Your task to perform on an android device: turn off location Image 0: 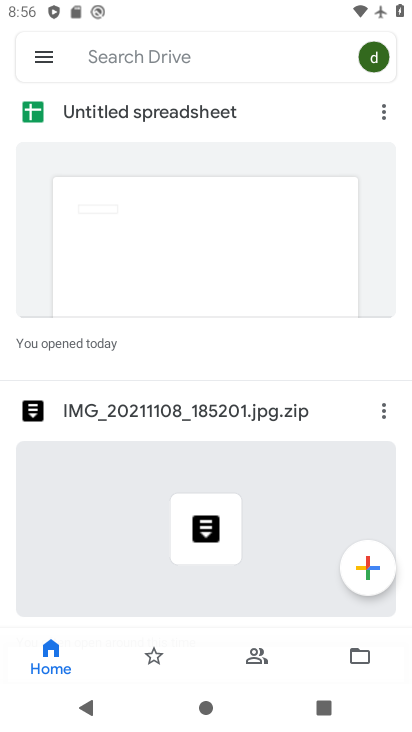
Step 0: press home button
Your task to perform on an android device: turn off location Image 1: 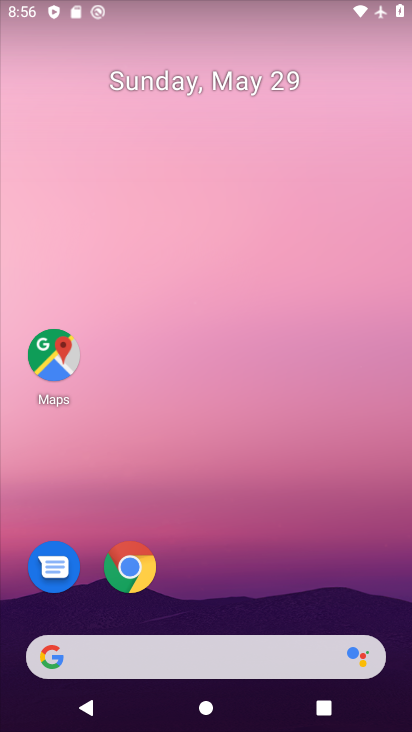
Step 1: drag from (386, 619) to (327, 136)
Your task to perform on an android device: turn off location Image 2: 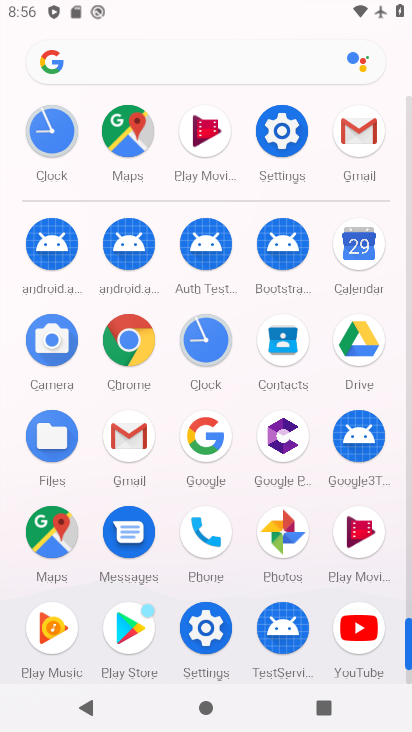
Step 2: click (208, 627)
Your task to perform on an android device: turn off location Image 3: 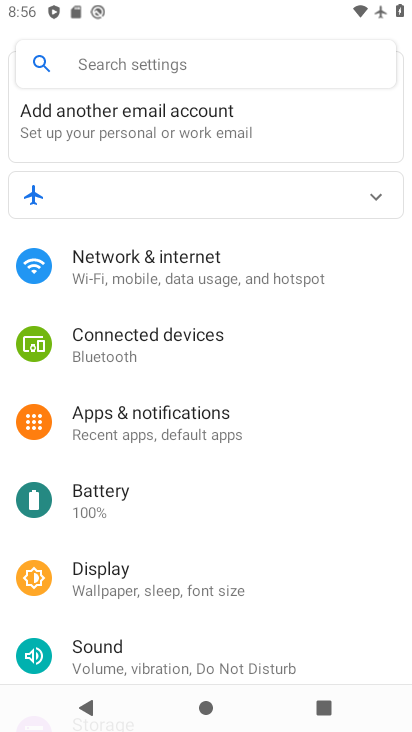
Step 3: drag from (303, 625) to (305, 153)
Your task to perform on an android device: turn off location Image 4: 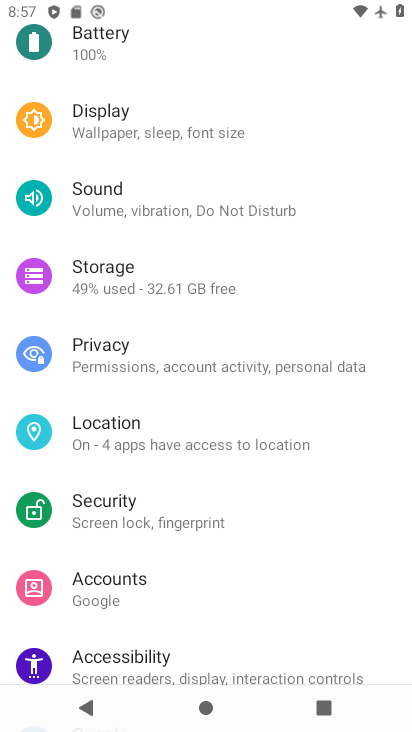
Step 4: click (104, 420)
Your task to perform on an android device: turn off location Image 5: 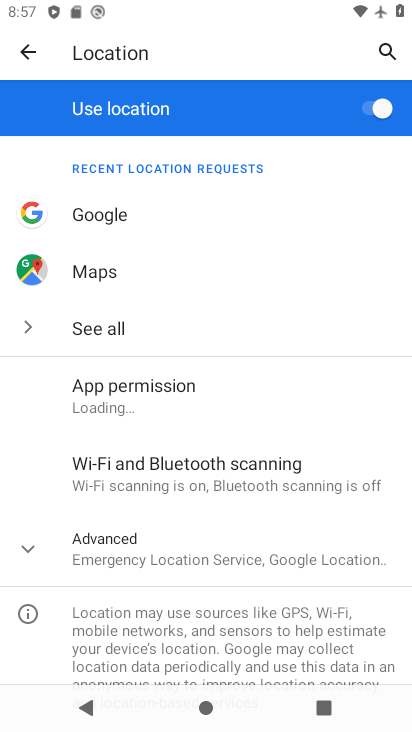
Step 5: click (365, 102)
Your task to perform on an android device: turn off location Image 6: 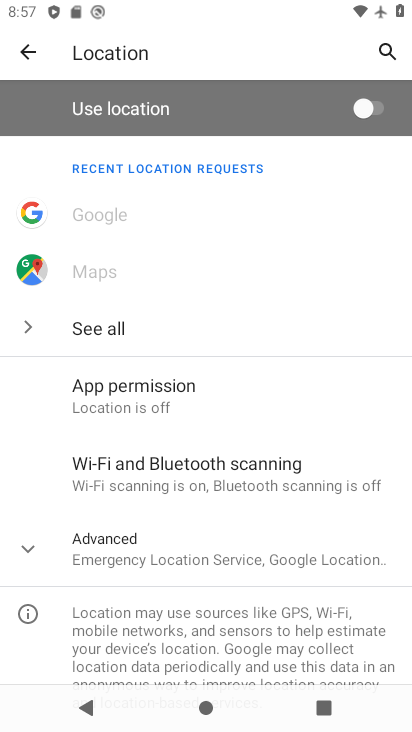
Step 6: task complete